Your task to perform on an android device: Go to CNN.com Image 0: 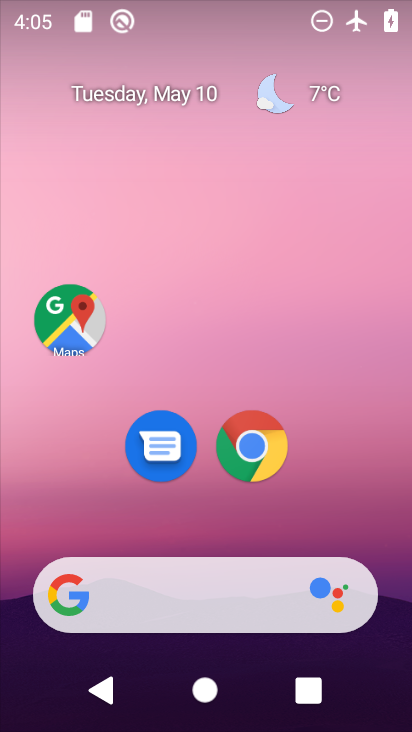
Step 0: click (255, 457)
Your task to perform on an android device: Go to CNN.com Image 1: 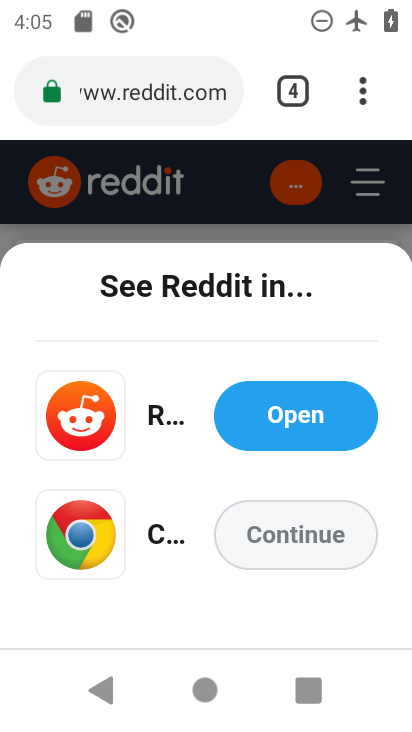
Step 1: click (286, 97)
Your task to perform on an android device: Go to CNN.com Image 2: 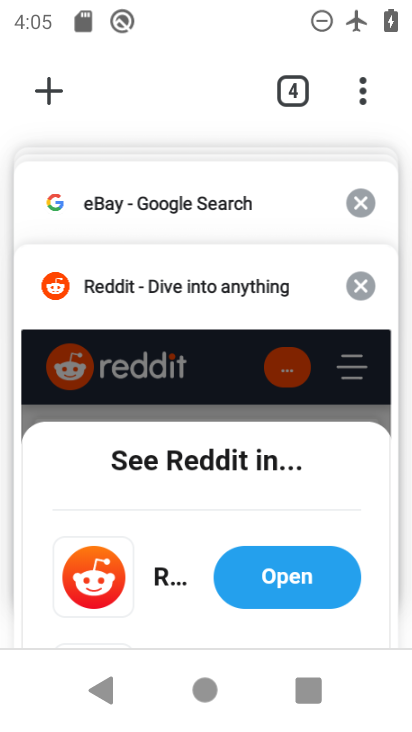
Step 2: click (44, 94)
Your task to perform on an android device: Go to CNN.com Image 3: 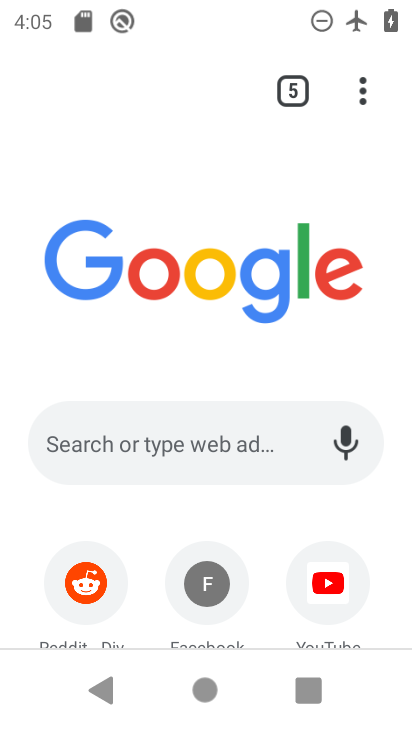
Step 3: click (190, 443)
Your task to perform on an android device: Go to CNN.com Image 4: 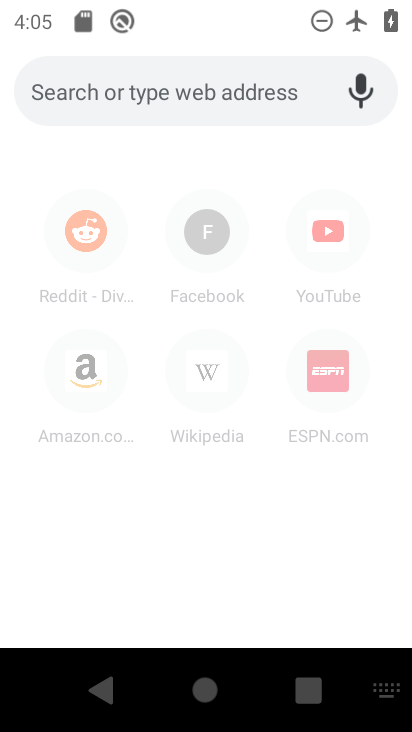
Step 4: type "CNN.com"
Your task to perform on an android device: Go to CNN.com Image 5: 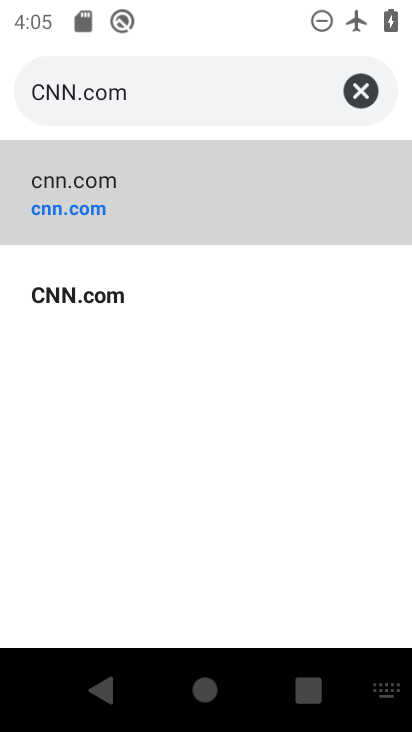
Step 5: click (190, 201)
Your task to perform on an android device: Go to CNN.com Image 6: 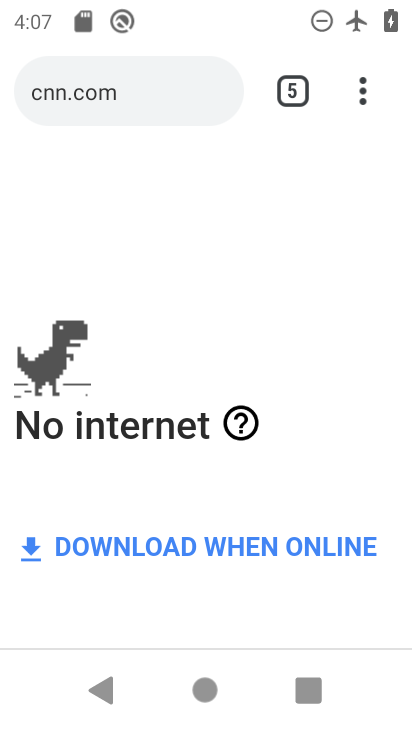
Step 6: task complete